Your task to perform on an android device: refresh tabs in the chrome app Image 0: 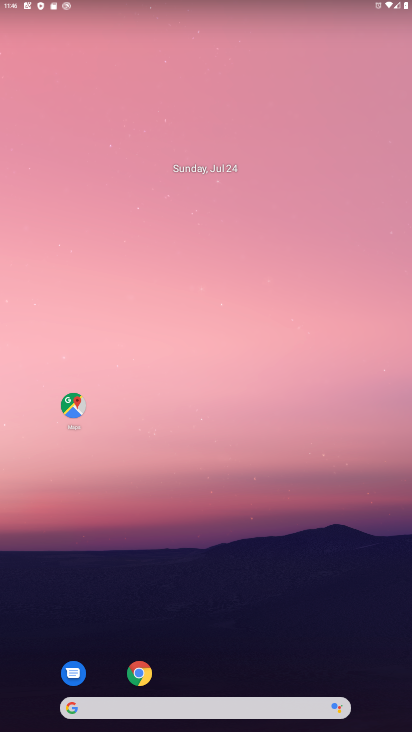
Step 0: drag from (288, 557) to (248, 64)
Your task to perform on an android device: refresh tabs in the chrome app Image 1: 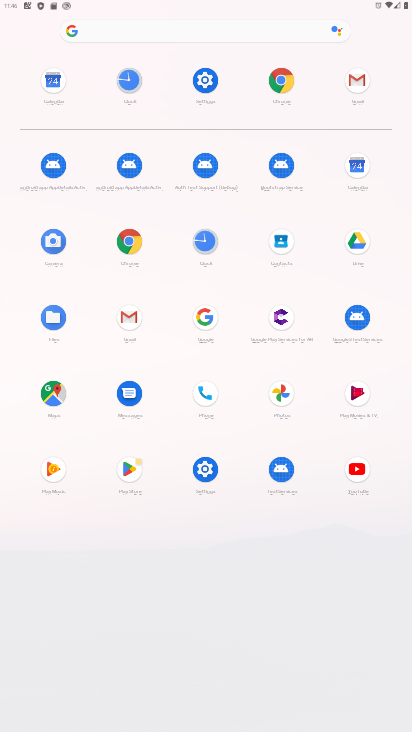
Step 1: click (279, 84)
Your task to perform on an android device: refresh tabs in the chrome app Image 2: 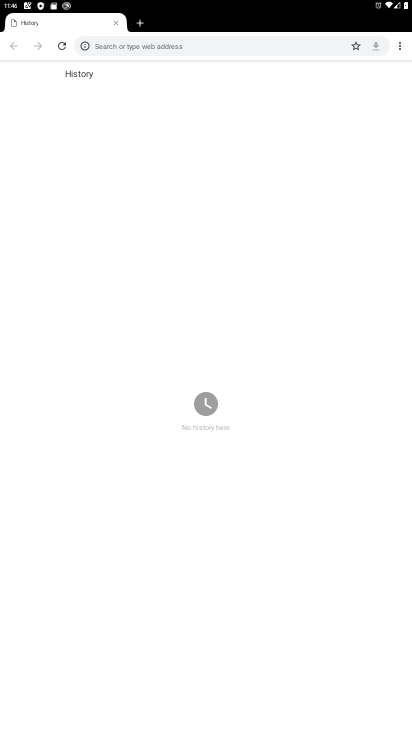
Step 2: click (64, 41)
Your task to perform on an android device: refresh tabs in the chrome app Image 3: 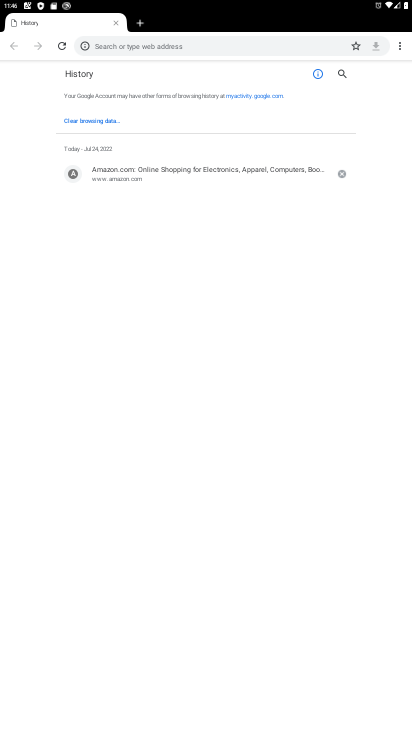
Step 3: task complete